Your task to perform on an android device: open wifi settings Image 0: 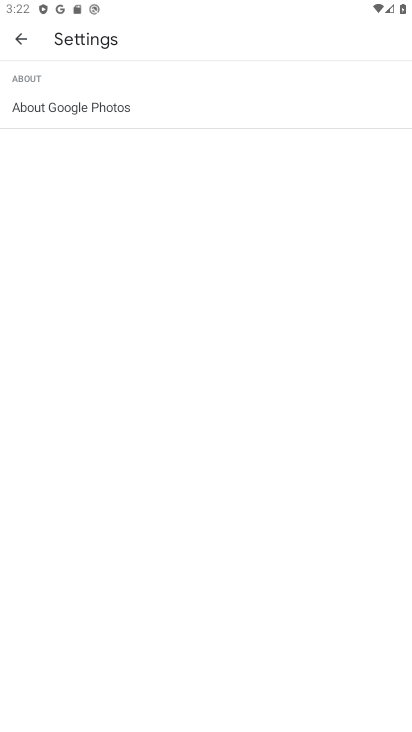
Step 0: click (22, 38)
Your task to perform on an android device: open wifi settings Image 1: 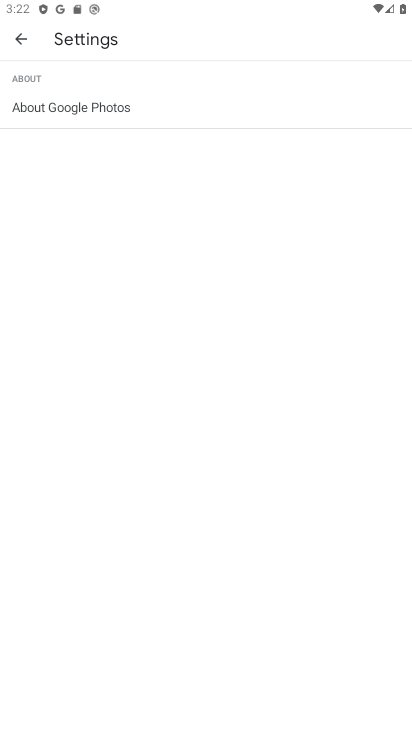
Step 1: press home button
Your task to perform on an android device: open wifi settings Image 2: 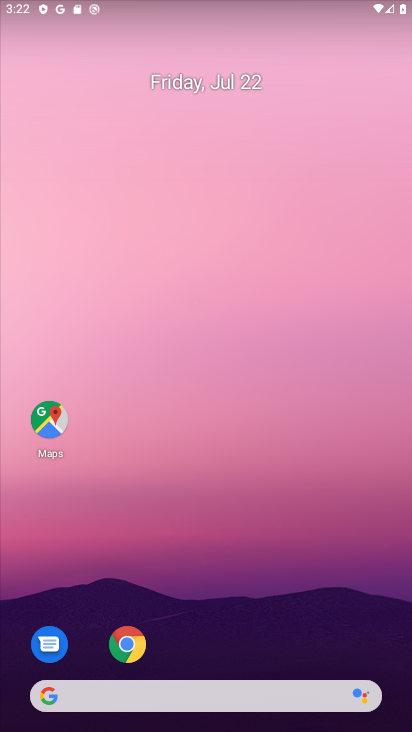
Step 2: drag from (221, 725) to (235, 205)
Your task to perform on an android device: open wifi settings Image 3: 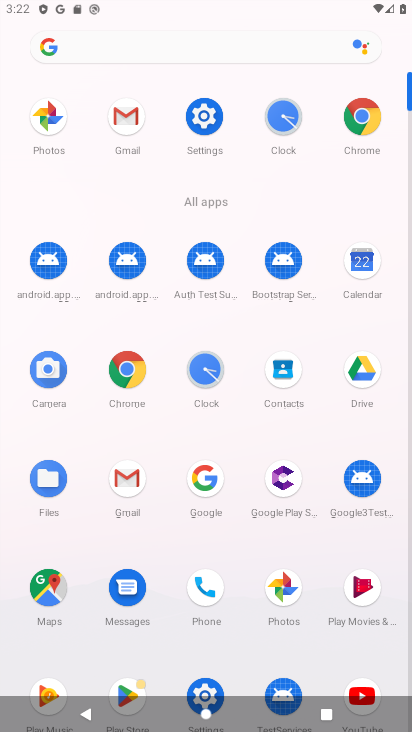
Step 3: click (202, 117)
Your task to perform on an android device: open wifi settings Image 4: 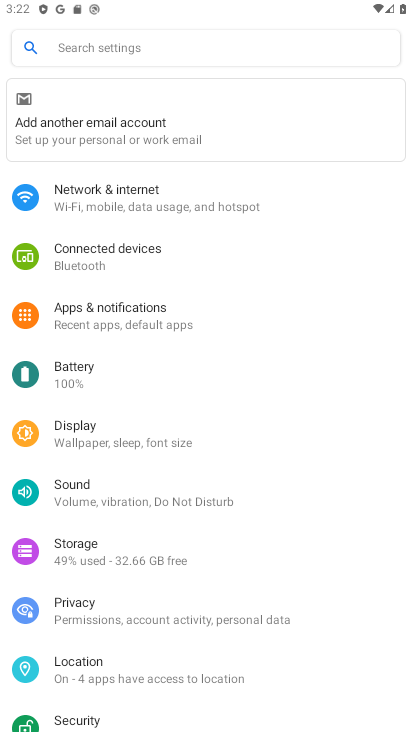
Step 4: click (113, 201)
Your task to perform on an android device: open wifi settings Image 5: 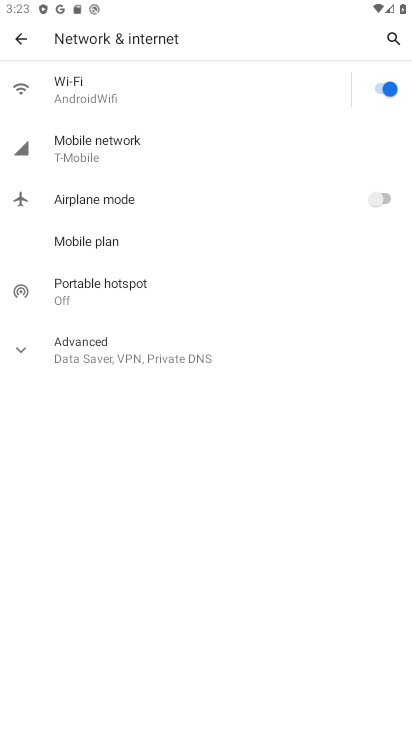
Step 5: click (90, 96)
Your task to perform on an android device: open wifi settings Image 6: 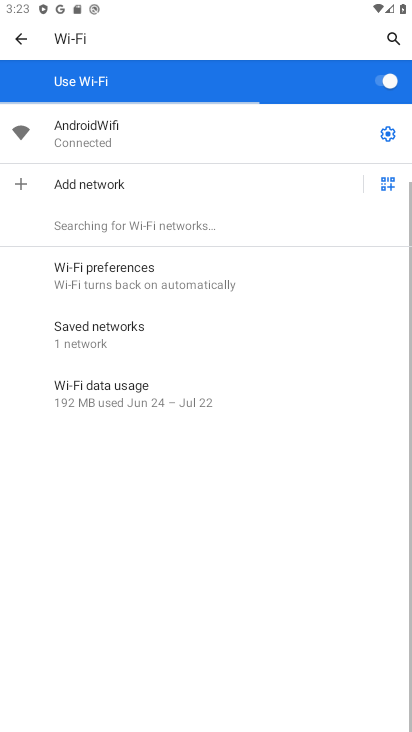
Step 6: task complete